Your task to perform on an android device: empty trash in google photos Image 0: 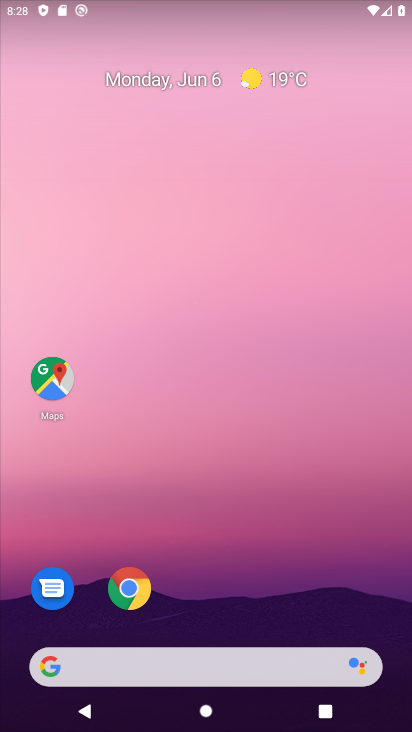
Step 0: drag from (308, 635) to (336, 0)
Your task to perform on an android device: empty trash in google photos Image 1: 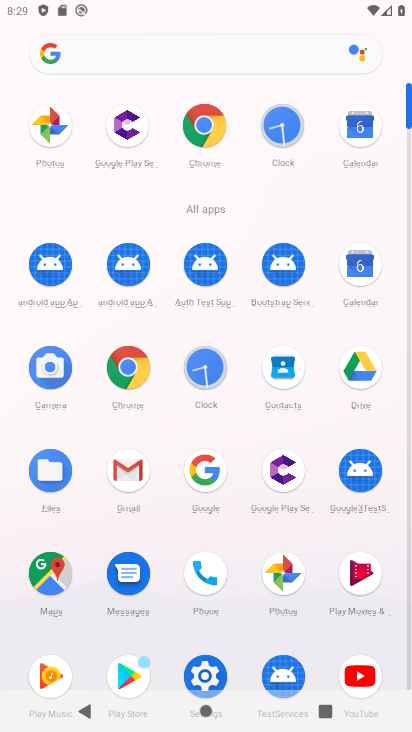
Step 1: click (279, 582)
Your task to perform on an android device: empty trash in google photos Image 2: 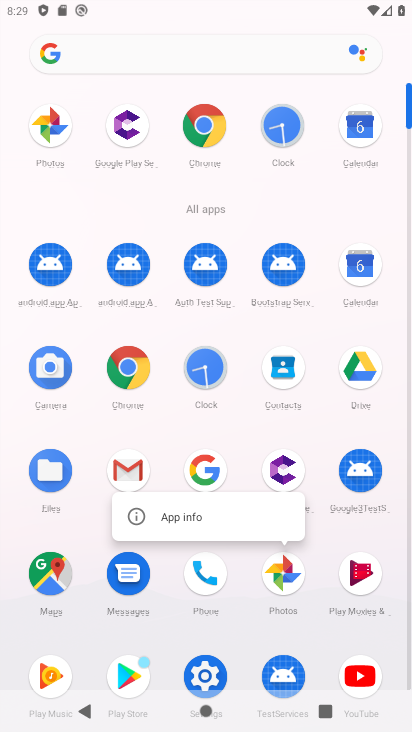
Step 2: click (275, 580)
Your task to perform on an android device: empty trash in google photos Image 3: 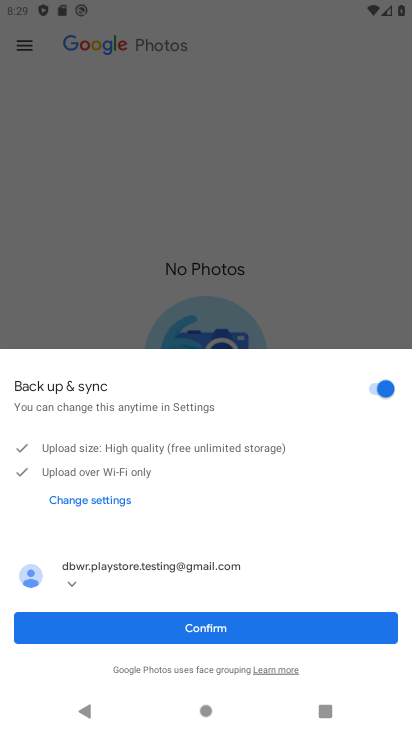
Step 3: drag from (246, 620) to (200, 620)
Your task to perform on an android device: empty trash in google photos Image 4: 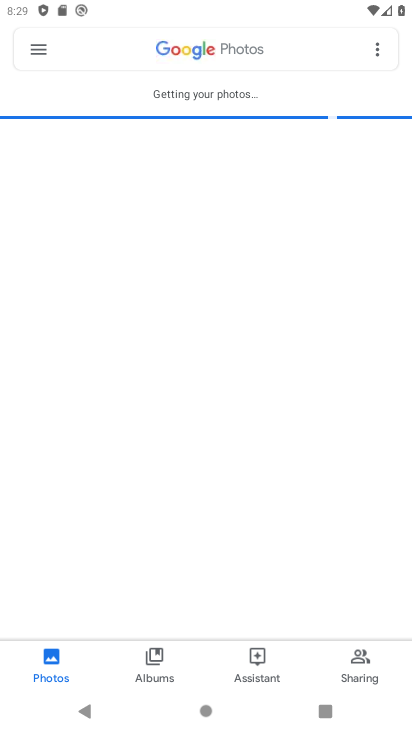
Step 4: click (29, 42)
Your task to perform on an android device: empty trash in google photos Image 5: 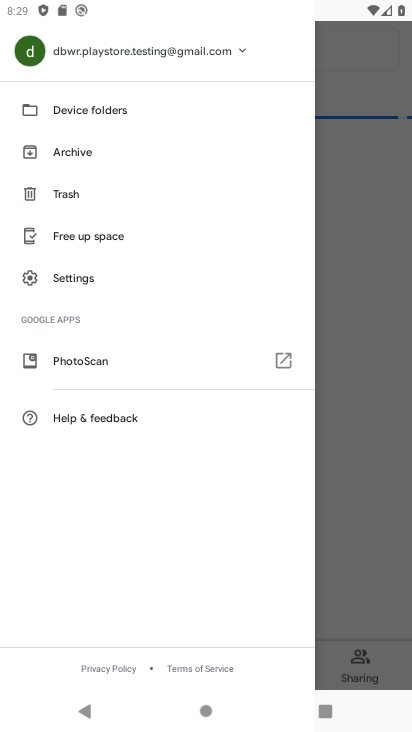
Step 5: click (96, 193)
Your task to perform on an android device: empty trash in google photos Image 6: 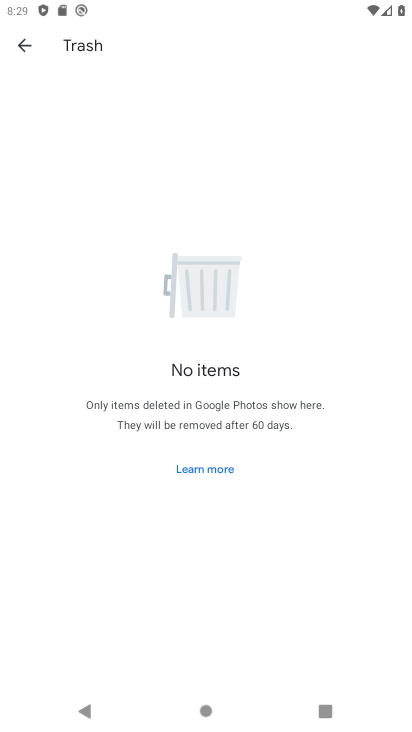
Step 6: task complete